Your task to perform on an android device: What's the weather going to be this weekend? Image 0: 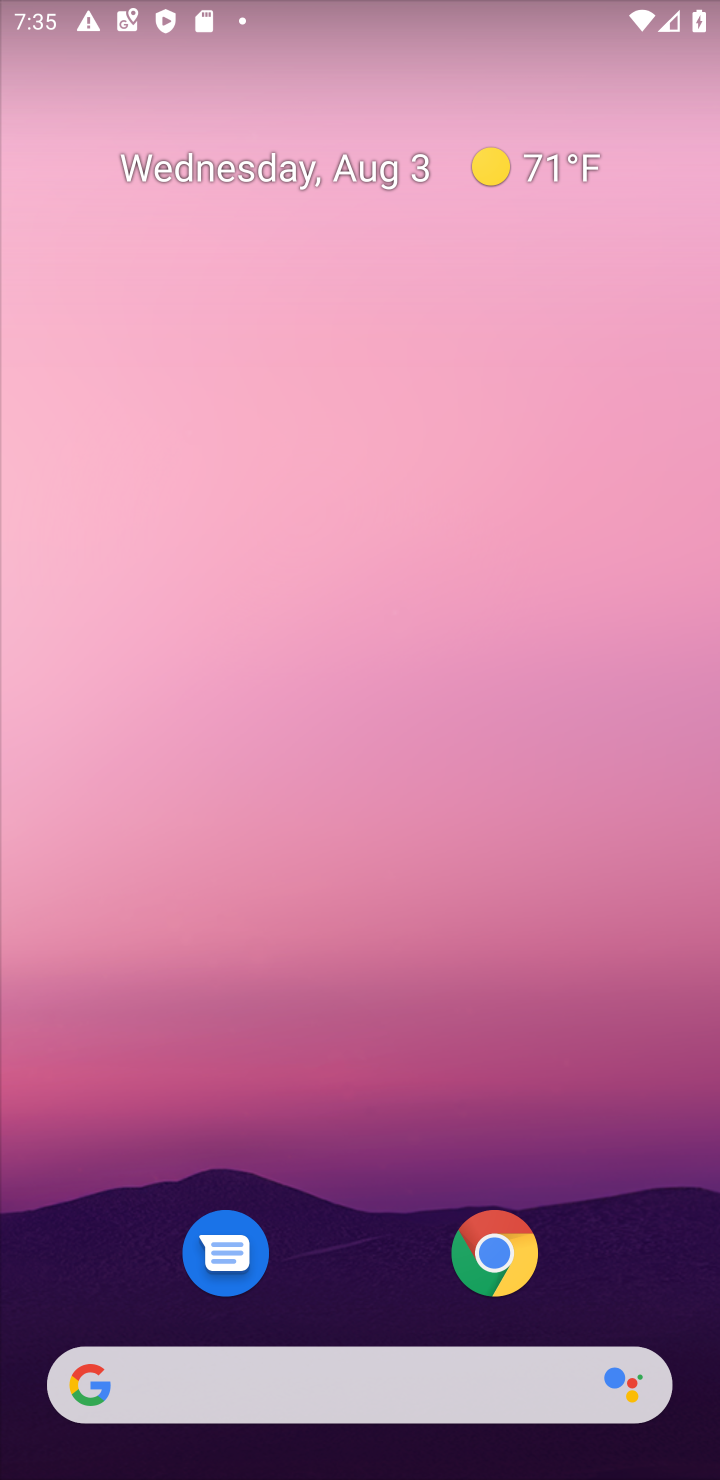
Step 0: drag from (356, 1183) to (529, 266)
Your task to perform on an android device: What's the weather going to be this weekend? Image 1: 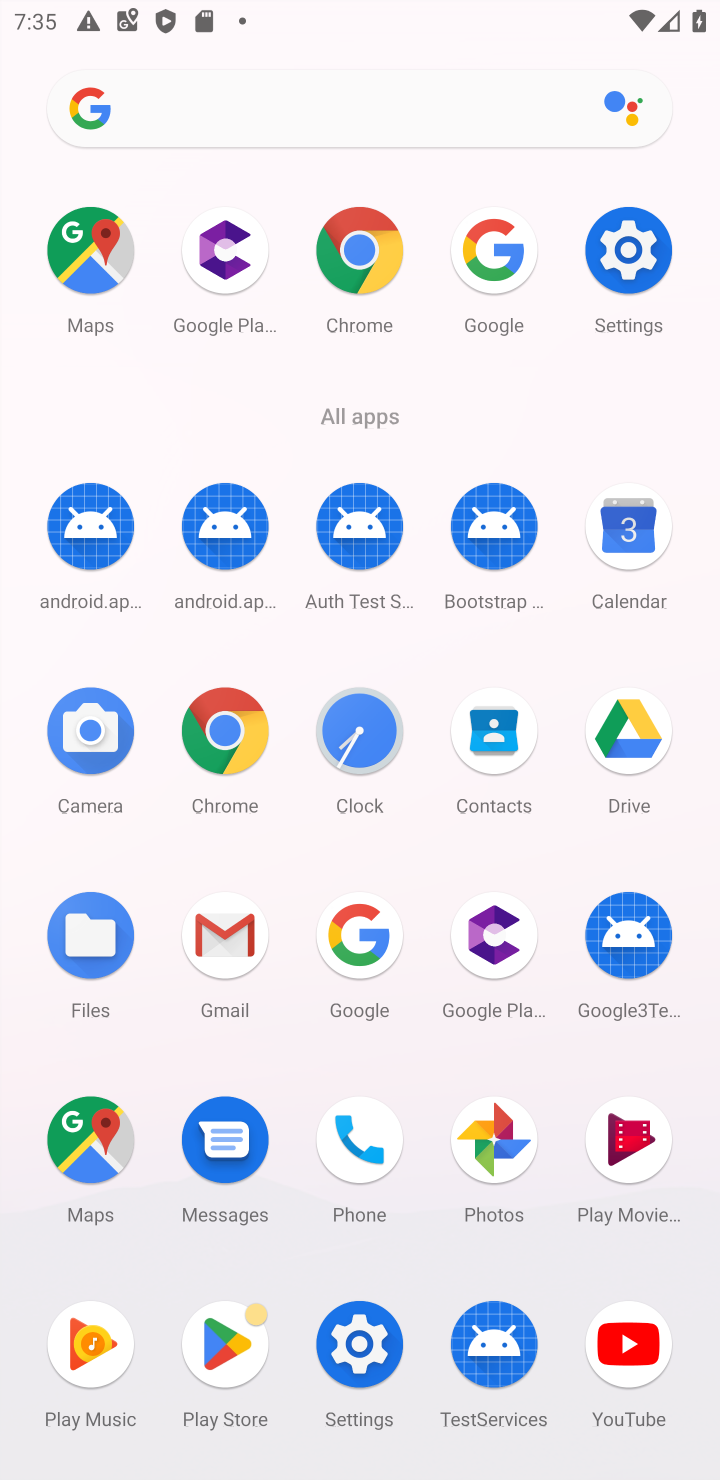
Step 1: click (355, 265)
Your task to perform on an android device: What's the weather going to be this weekend? Image 2: 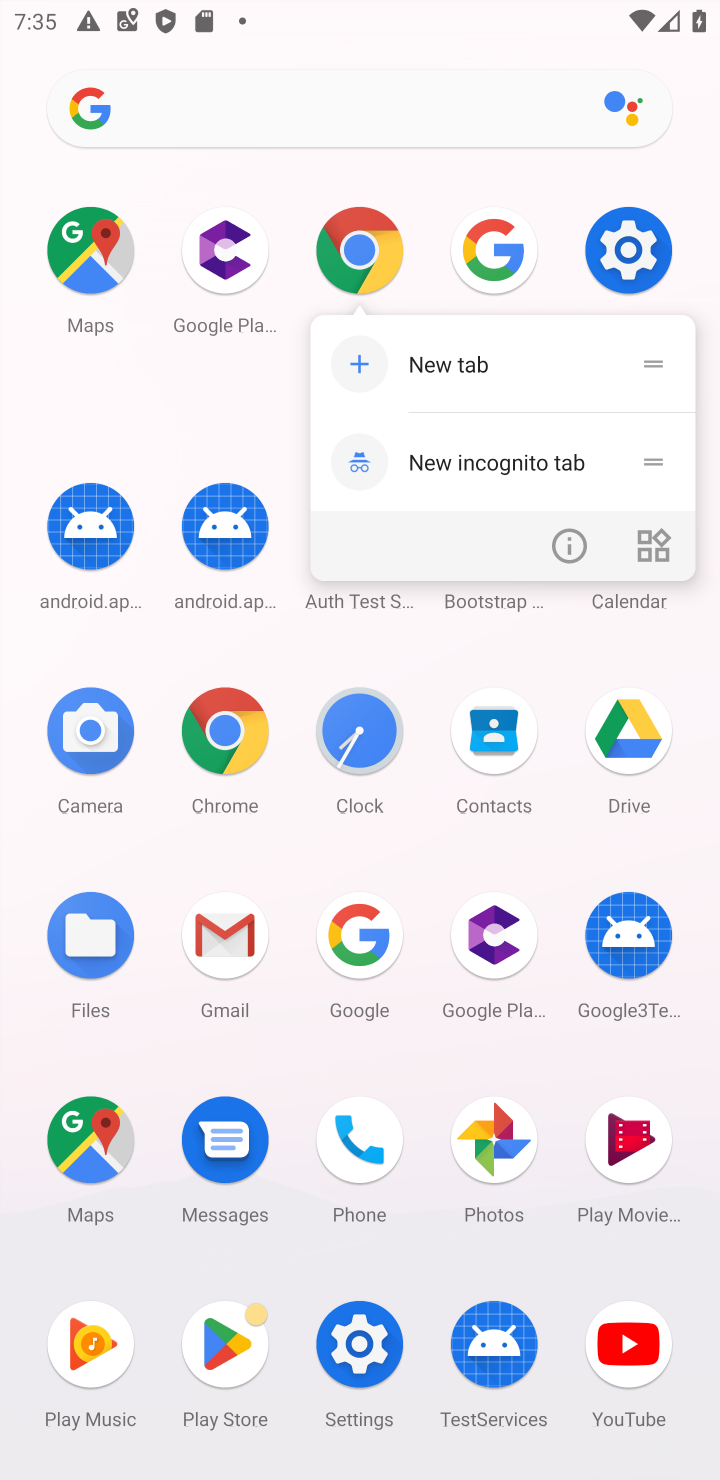
Step 2: click (358, 269)
Your task to perform on an android device: What's the weather going to be this weekend? Image 3: 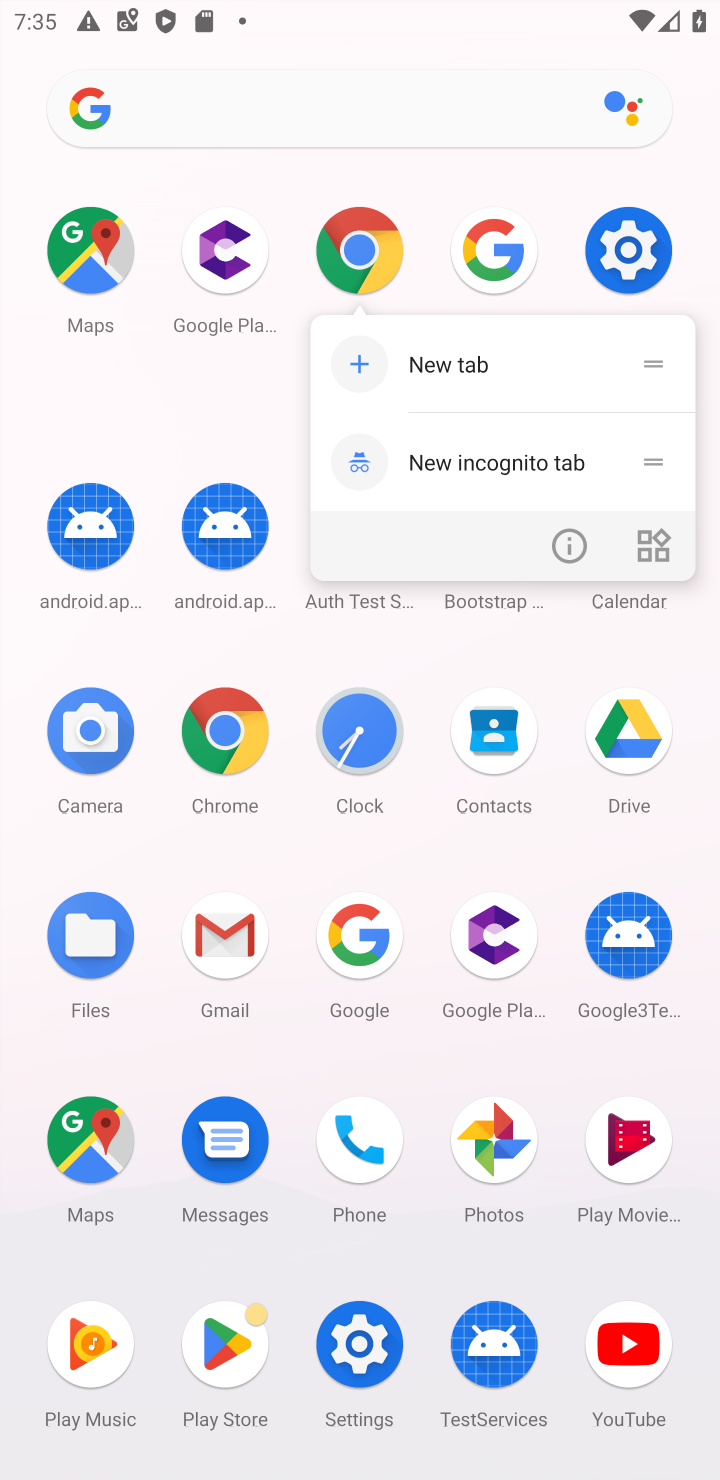
Step 3: click (357, 252)
Your task to perform on an android device: What's the weather going to be this weekend? Image 4: 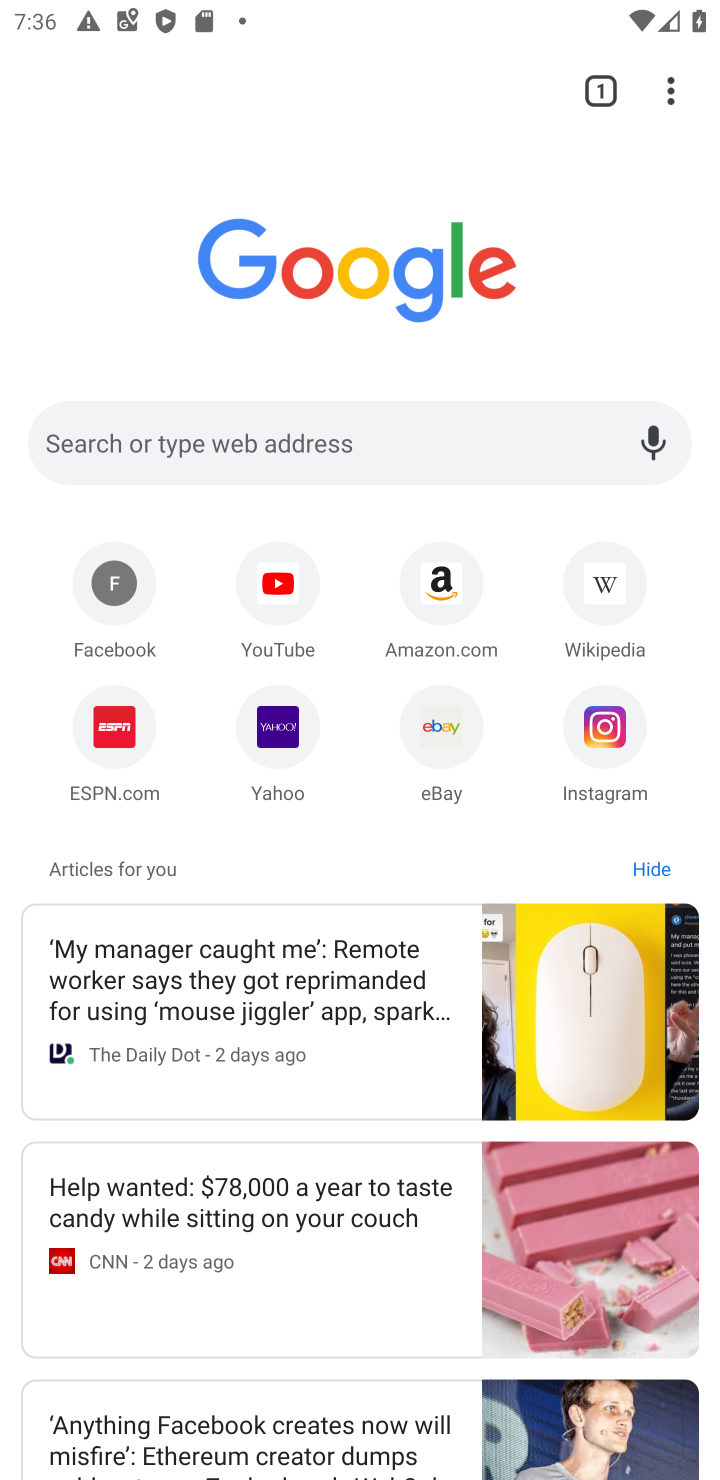
Step 4: click (329, 435)
Your task to perform on an android device: What's the weather going to be this weekend? Image 5: 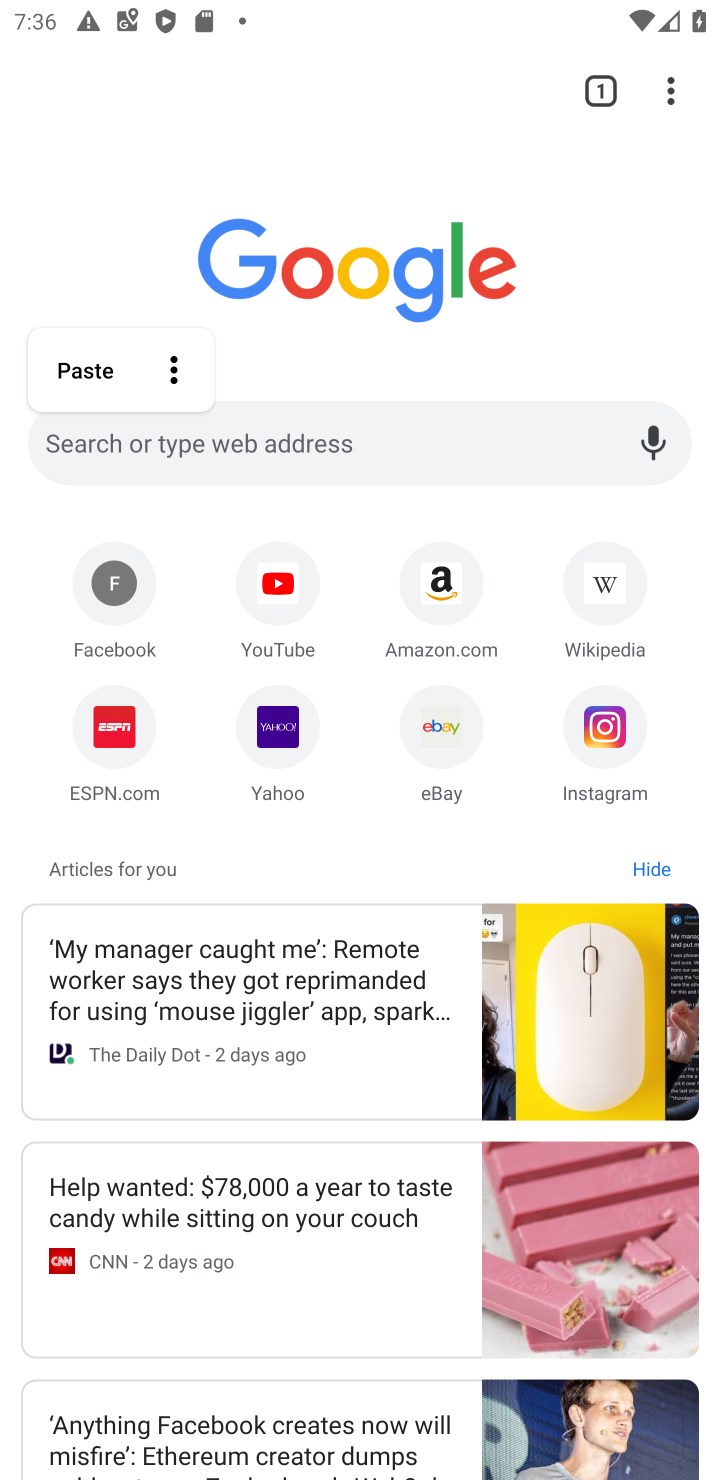
Step 5: type "what's the weather going to be this weekend?"
Your task to perform on an android device: What's the weather going to be this weekend? Image 6: 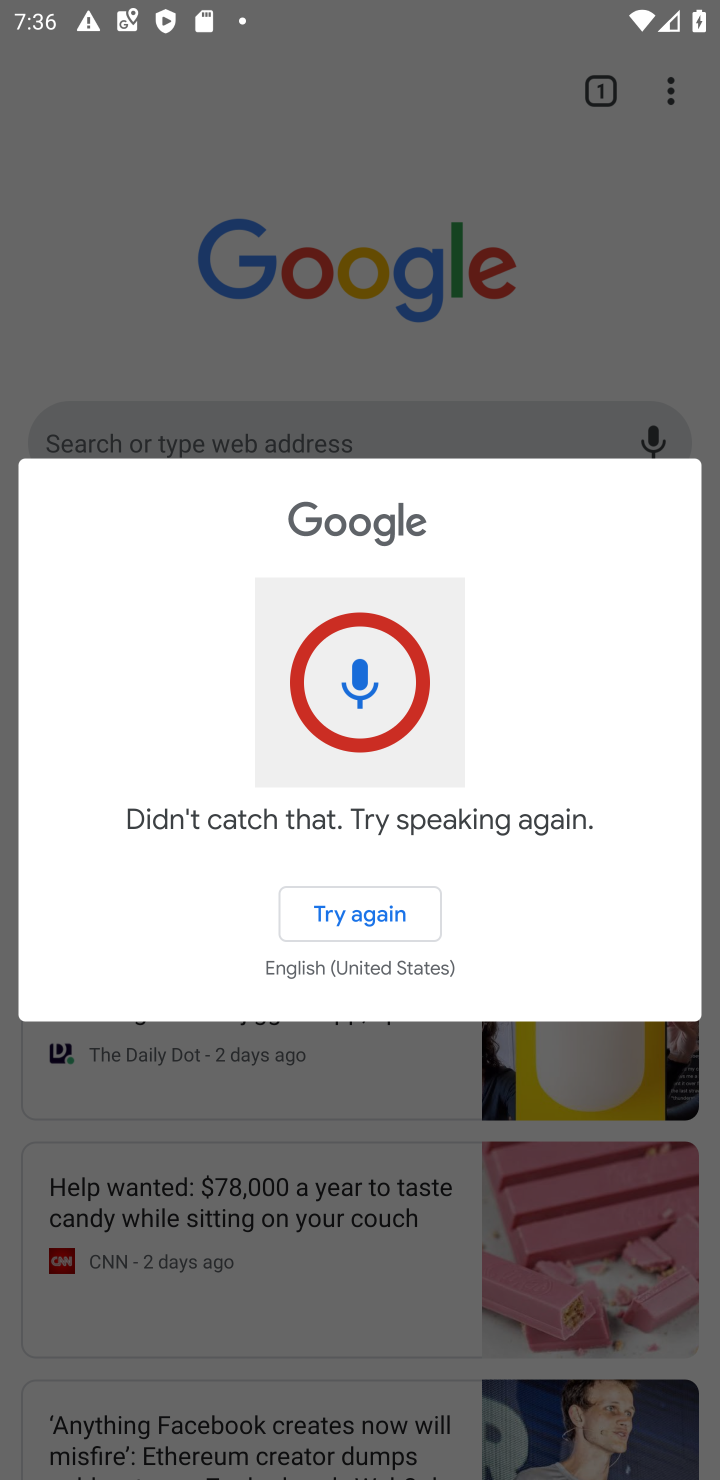
Step 6: click (359, 381)
Your task to perform on an android device: What's the weather going to be this weekend? Image 7: 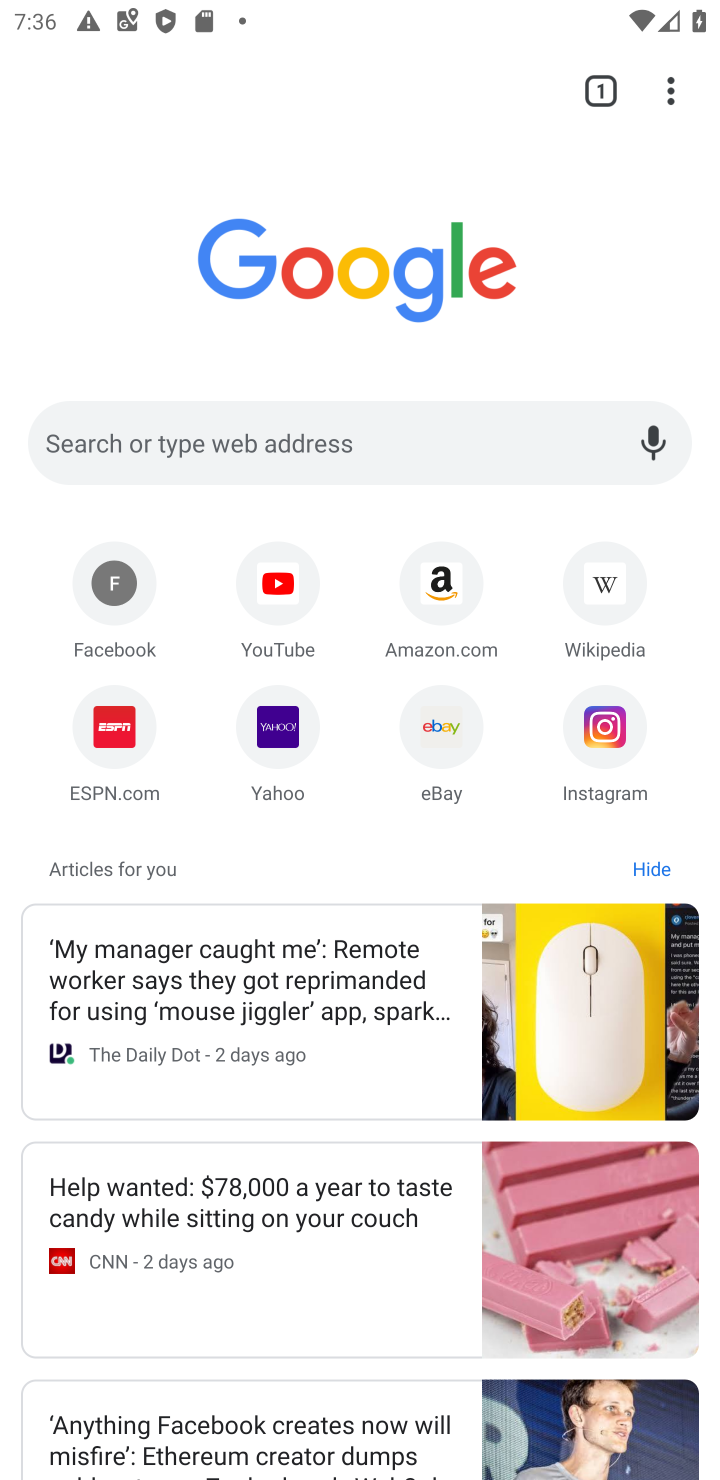
Step 7: click (356, 416)
Your task to perform on an android device: What's the weather going to be this weekend? Image 8: 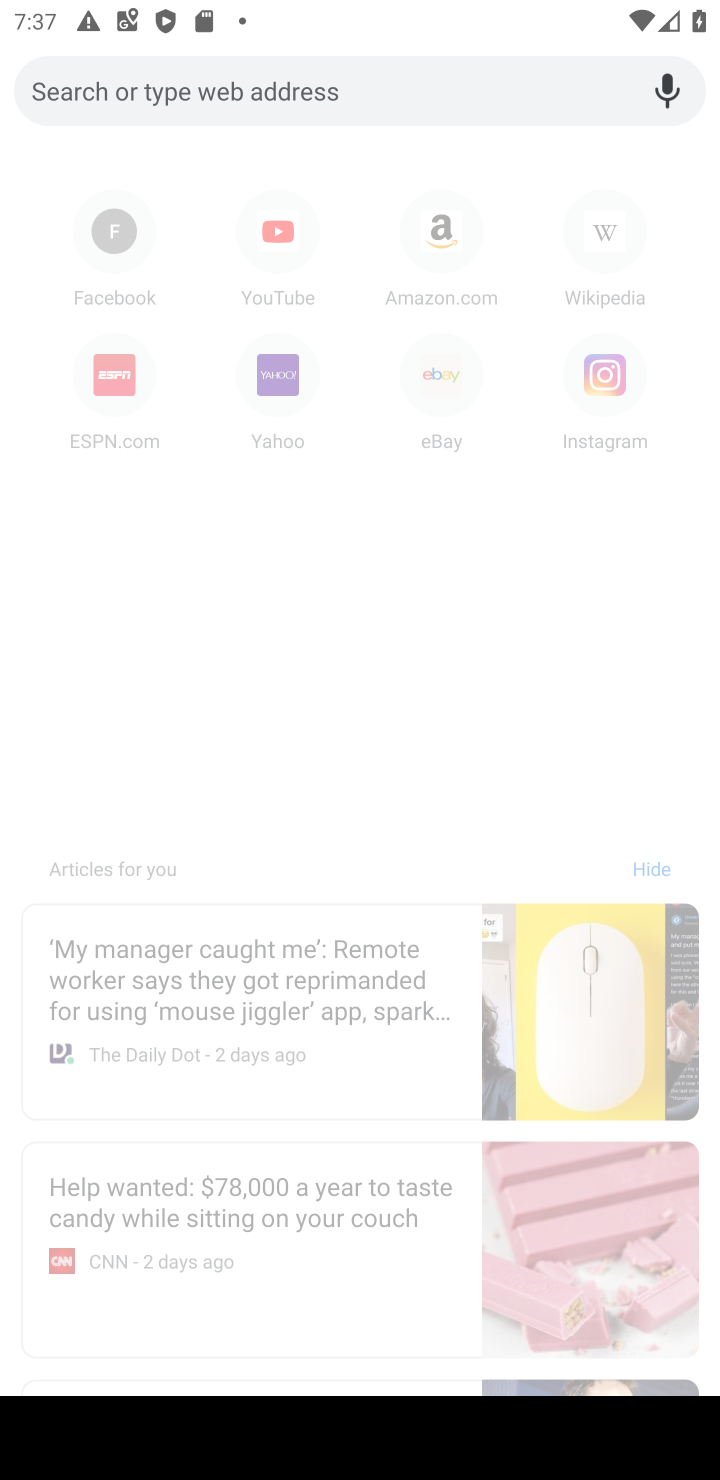
Step 8: type "What's the weather going to be this weekend?"
Your task to perform on an android device: What's the weather going to be this weekend? Image 9: 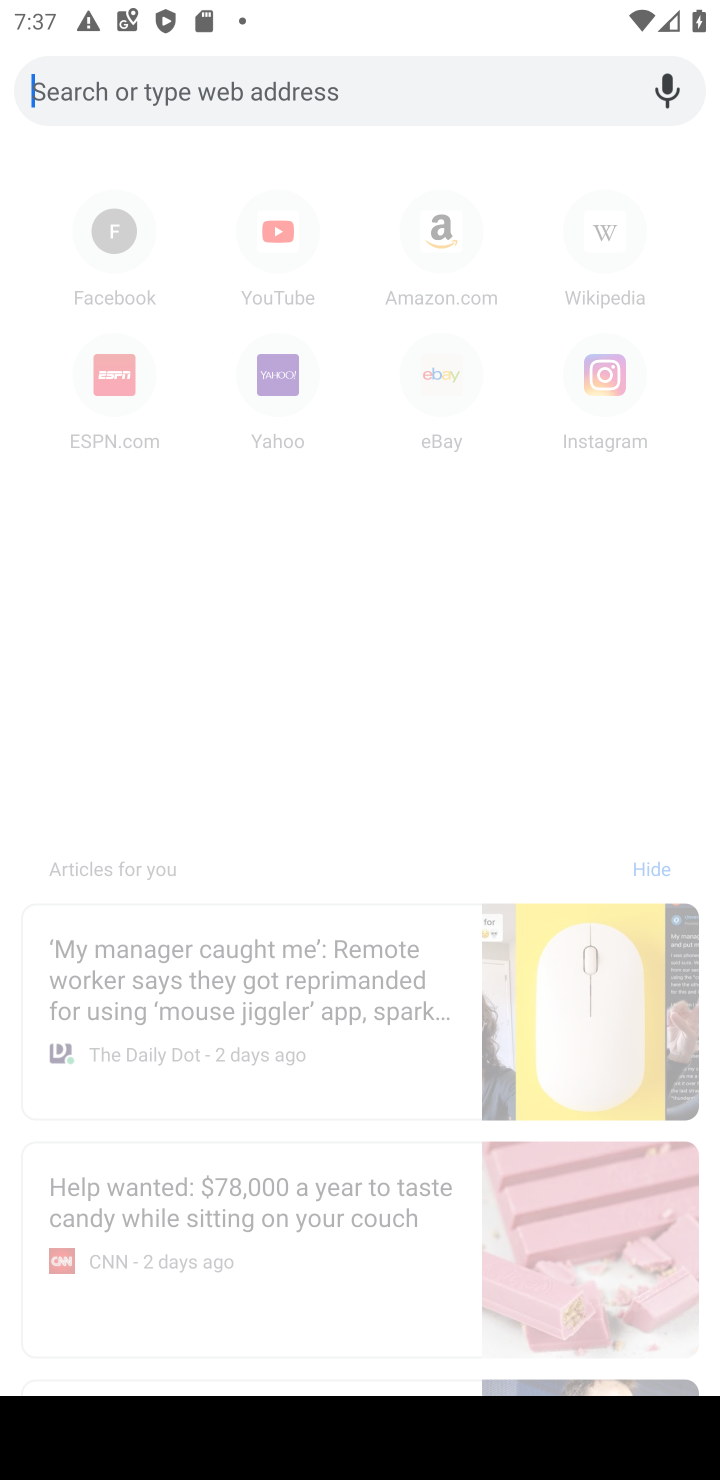
Step 9: click (102, 101)
Your task to perform on an android device: What's the weather going to be this weekend? Image 10: 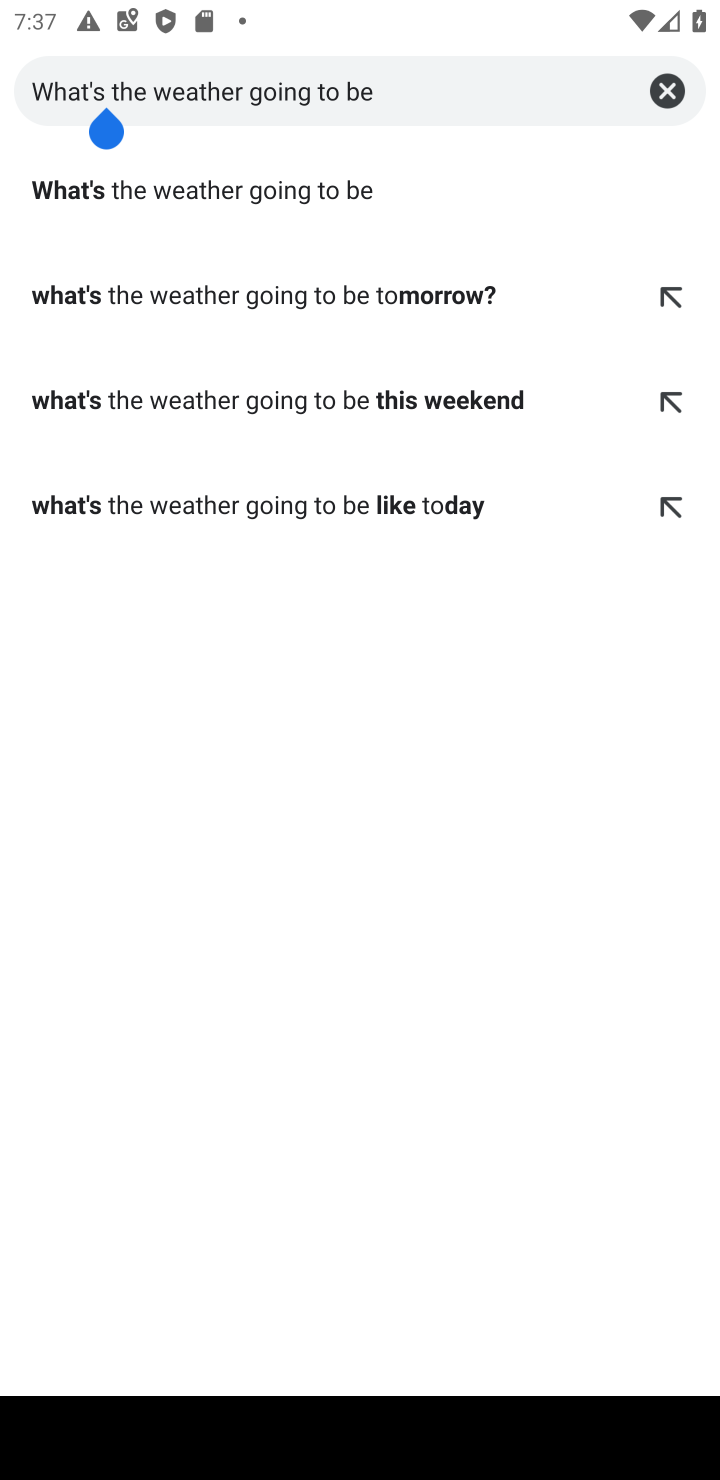
Step 10: click (459, 80)
Your task to perform on an android device: What's the weather going to be this weekend? Image 11: 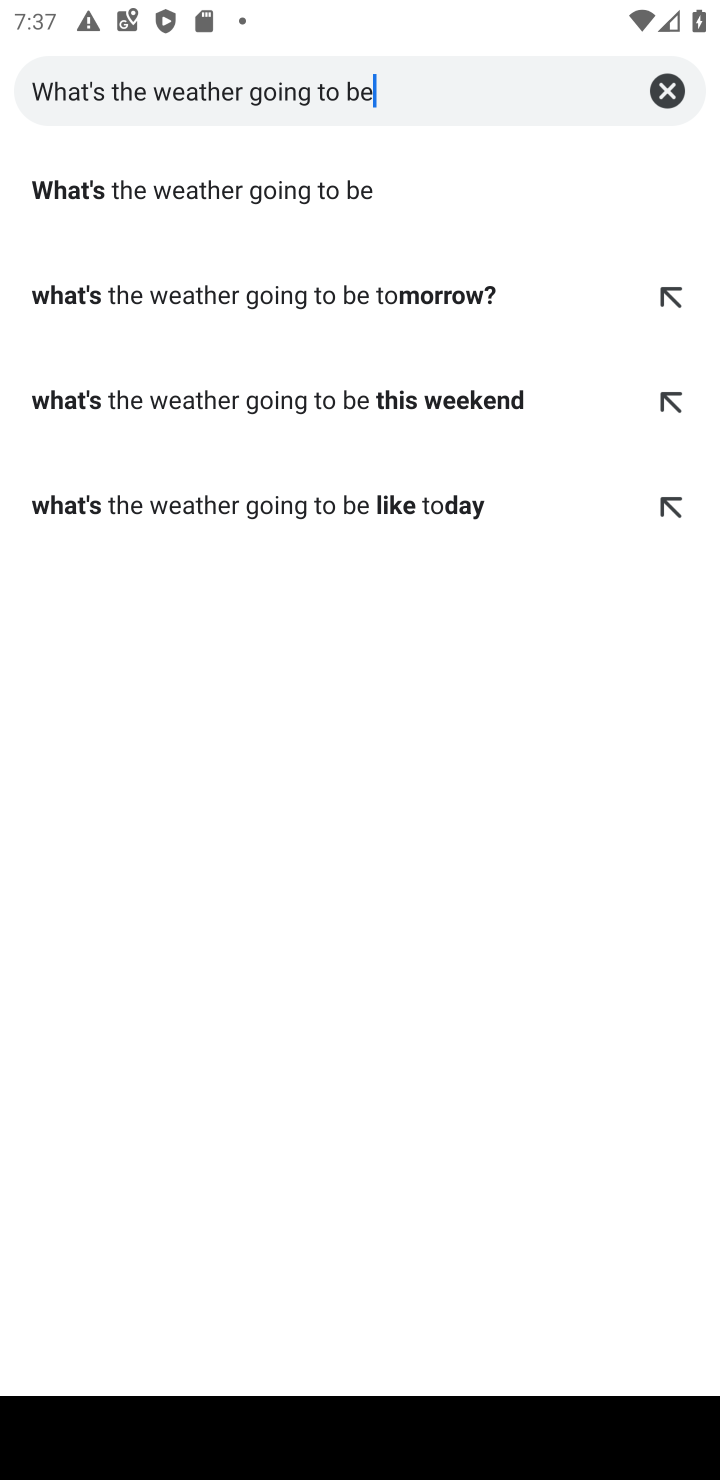
Step 11: click (315, 401)
Your task to perform on an android device: What's the weather going to be this weekend? Image 12: 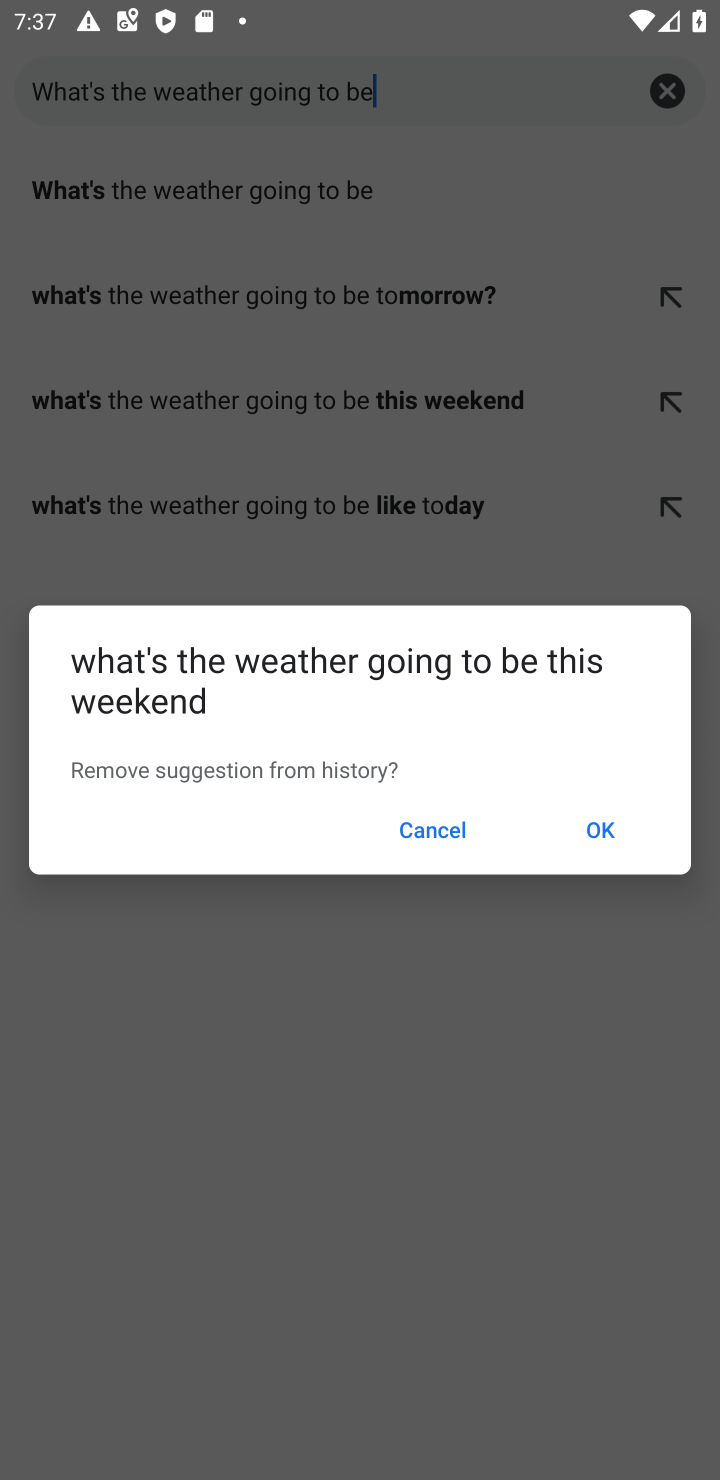
Step 12: click (606, 834)
Your task to perform on an android device: What's the weather going to be this weekend? Image 13: 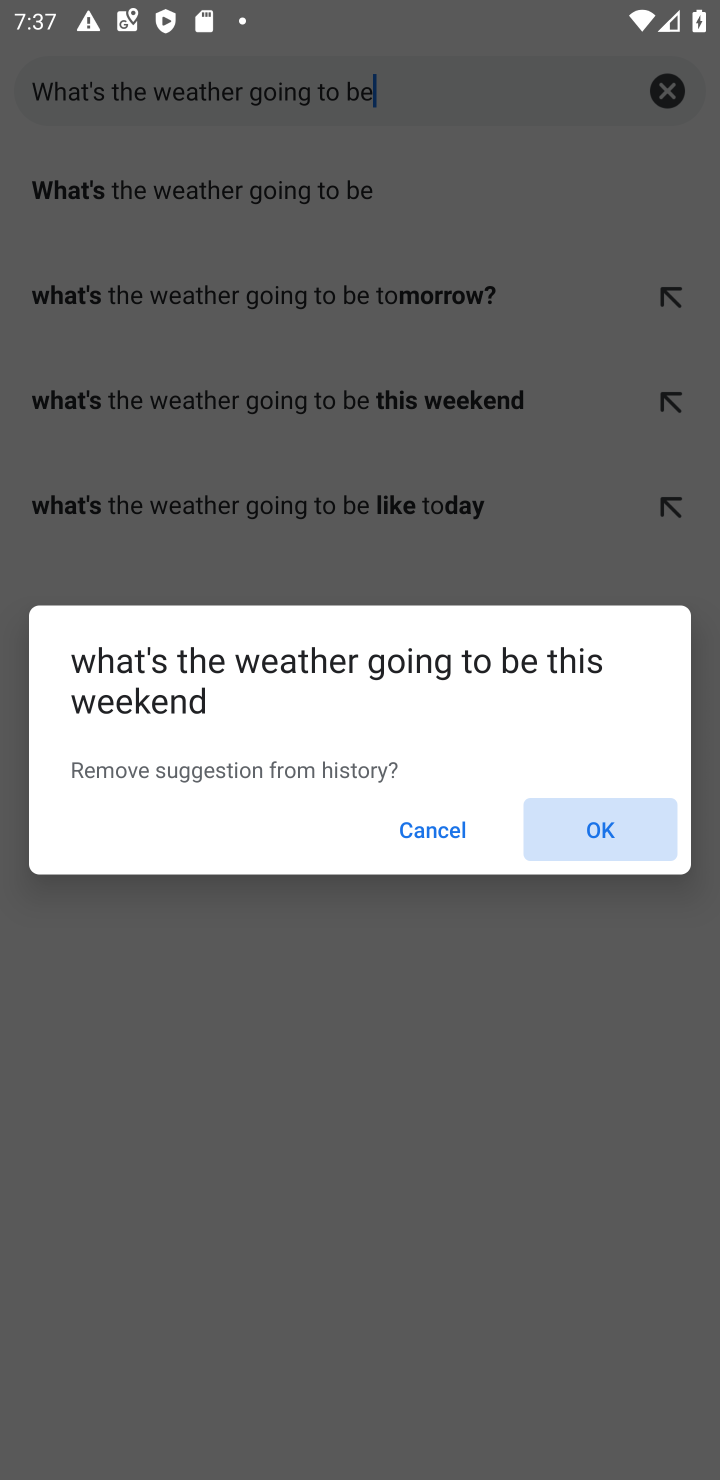
Step 13: click (430, 841)
Your task to perform on an android device: What's the weather going to be this weekend? Image 14: 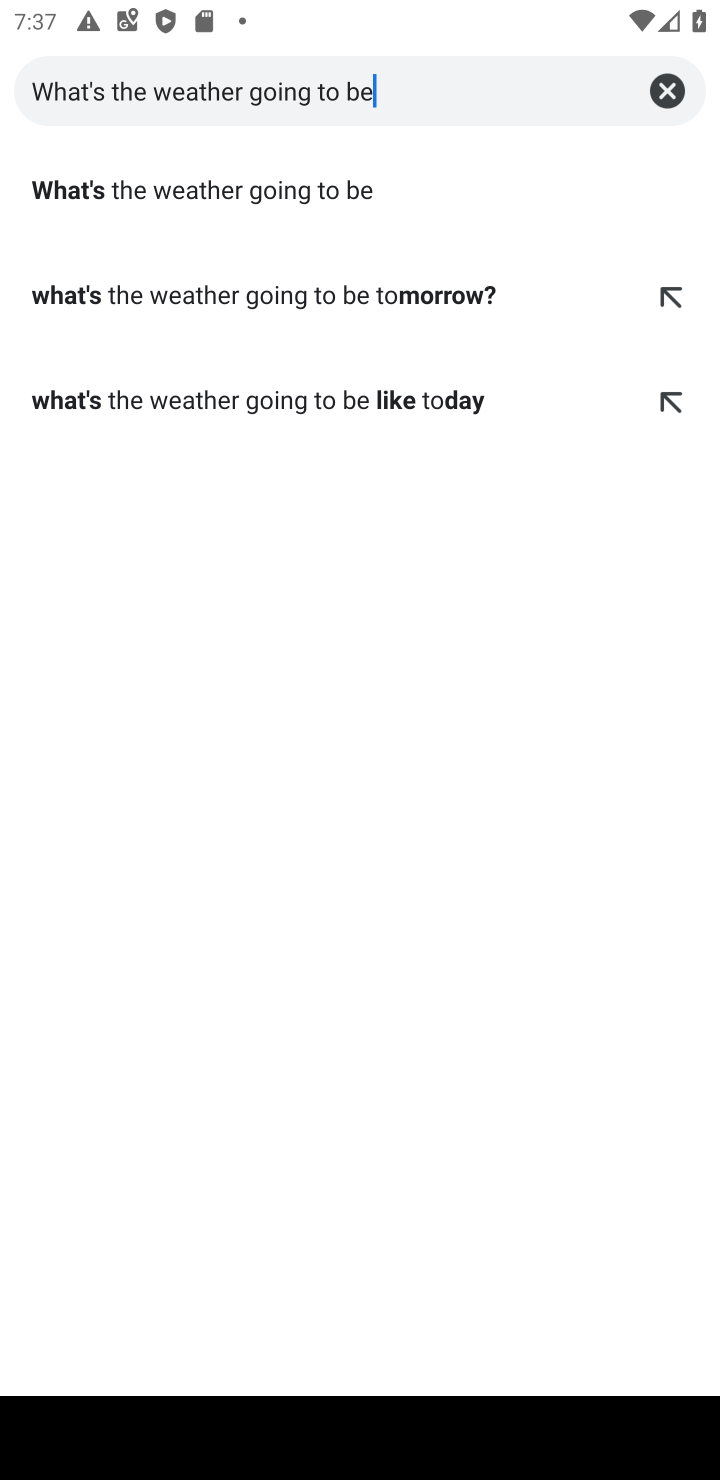
Step 14: type " this weekend?"
Your task to perform on an android device: What's the weather going to be this weekend? Image 15: 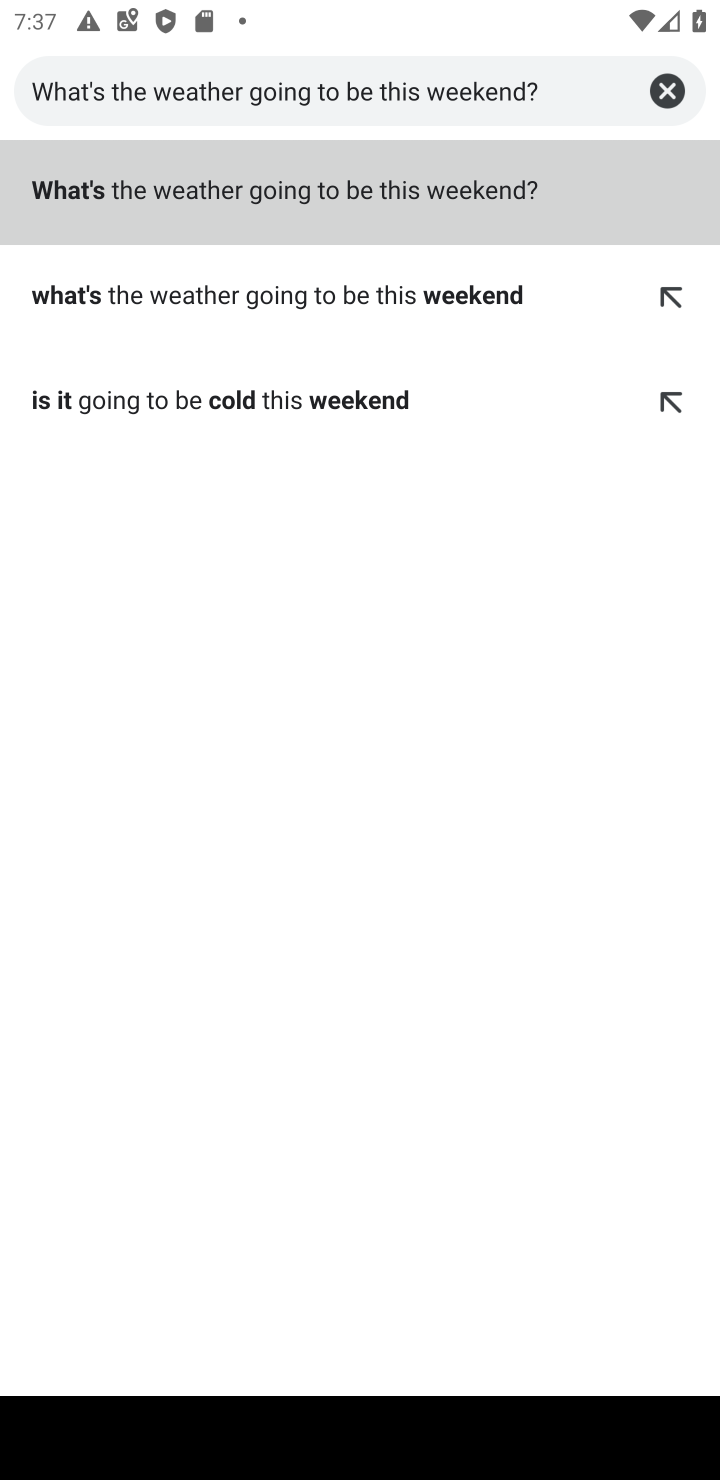
Step 15: click (258, 192)
Your task to perform on an android device: What's the weather going to be this weekend? Image 16: 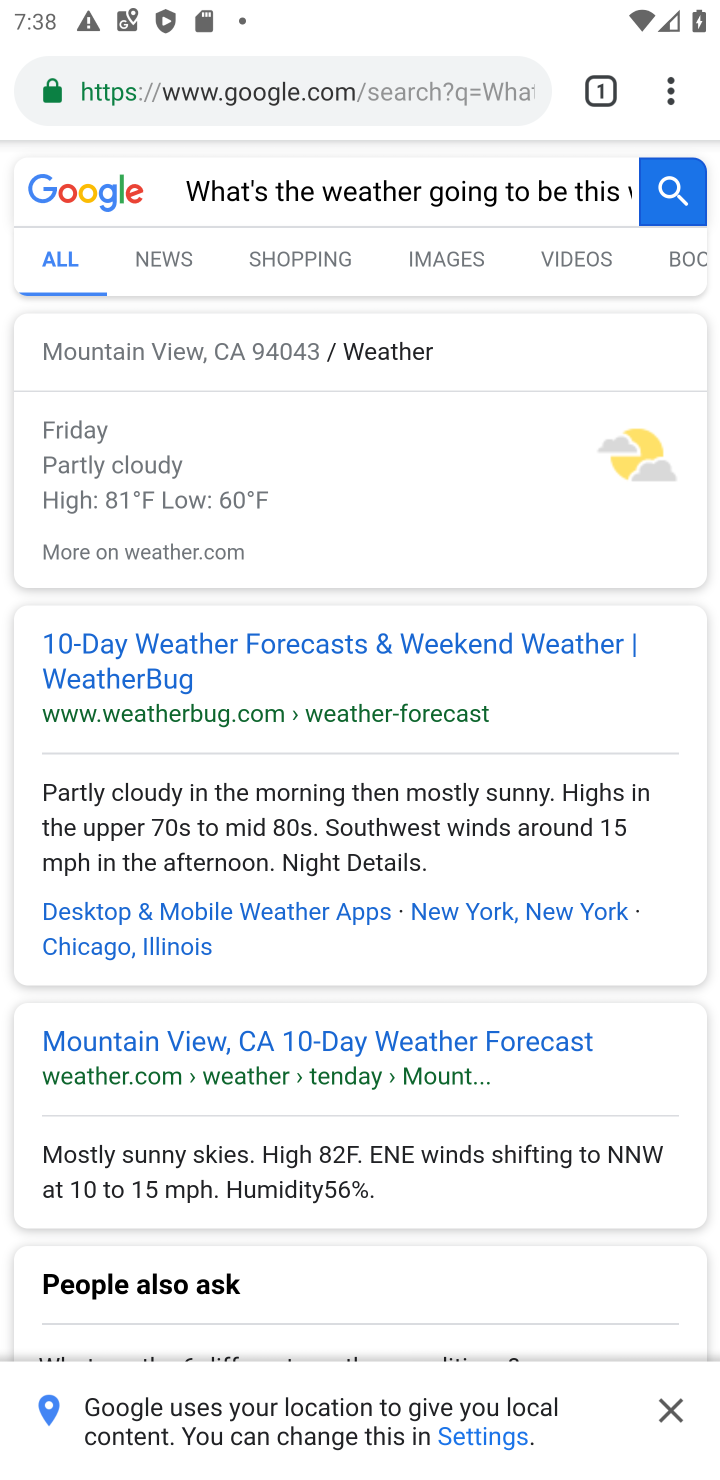
Step 16: task complete